Your task to perform on an android device: Go to location settings Image 0: 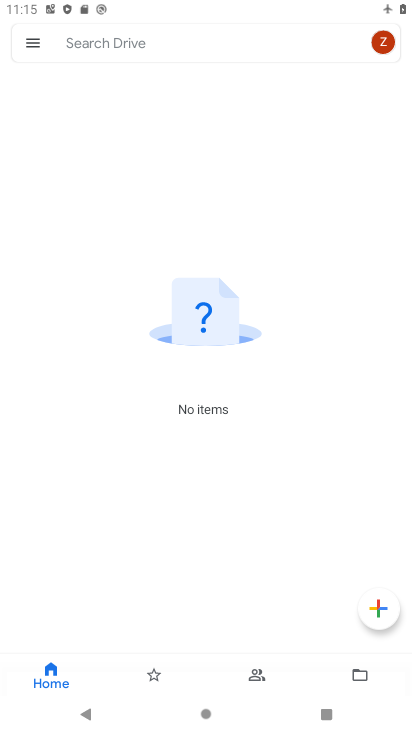
Step 0: press home button
Your task to perform on an android device: Go to location settings Image 1: 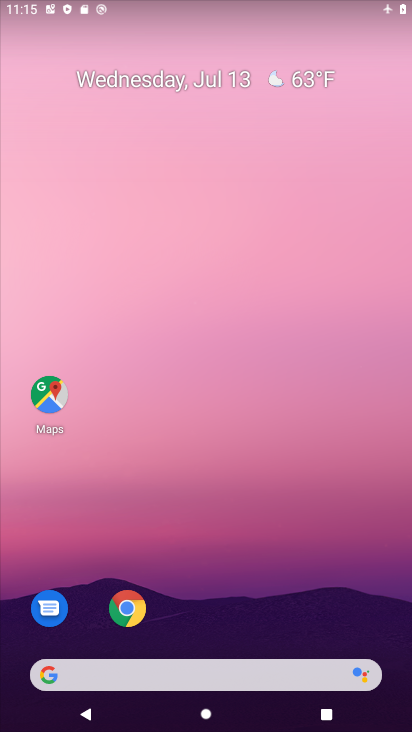
Step 1: drag from (306, 564) to (305, 67)
Your task to perform on an android device: Go to location settings Image 2: 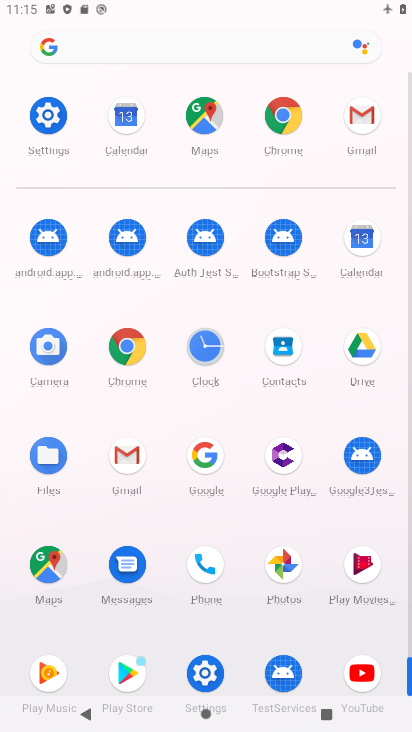
Step 2: drag from (284, 609) to (306, 411)
Your task to perform on an android device: Go to location settings Image 3: 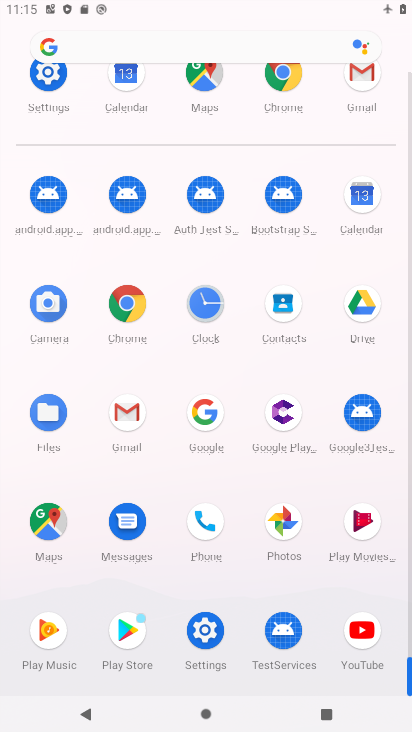
Step 3: click (48, 77)
Your task to perform on an android device: Go to location settings Image 4: 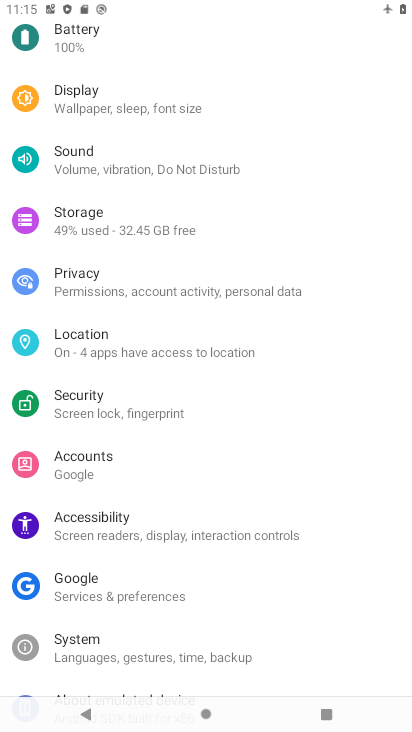
Step 4: click (93, 332)
Your task to perform on an android device: Go to location settings Image 5: 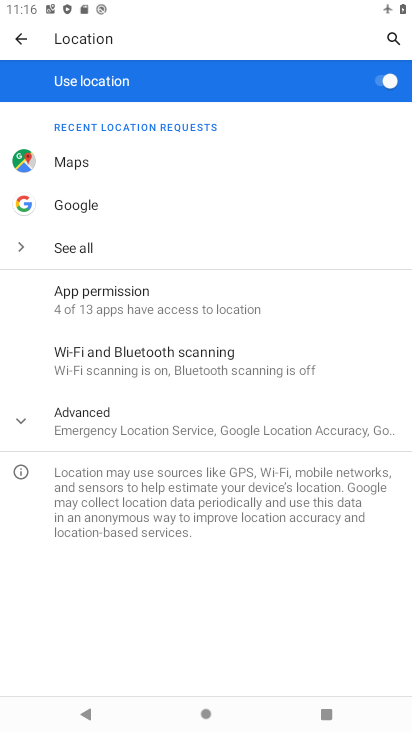
Step 5: task complete